Your task to perform on an android device: turn pop-ups off in chrome Image 0: 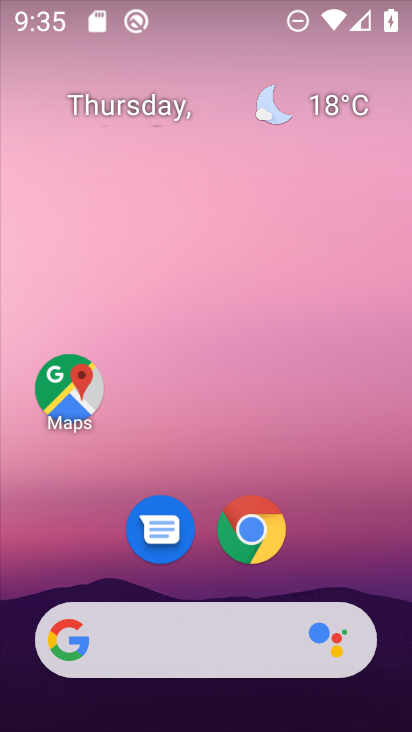
Step 0: click (246, 533)
Your task to perform on an android device: turn pop-ups off in chrome Image 1: 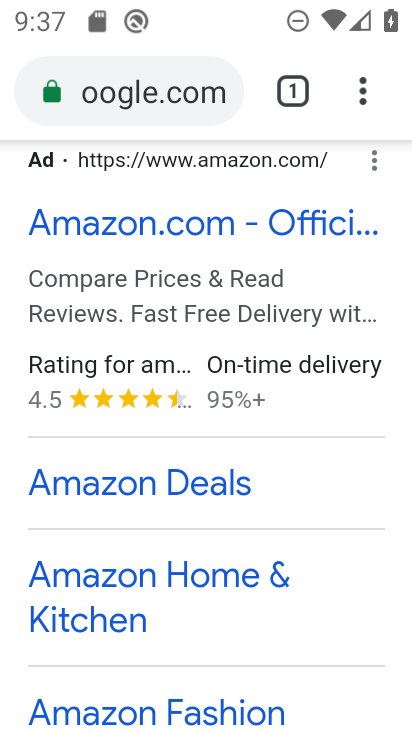
Step 1: click (368, 80)
Your task to perform on an android device: turn pop-ups off in chrome Image 2: 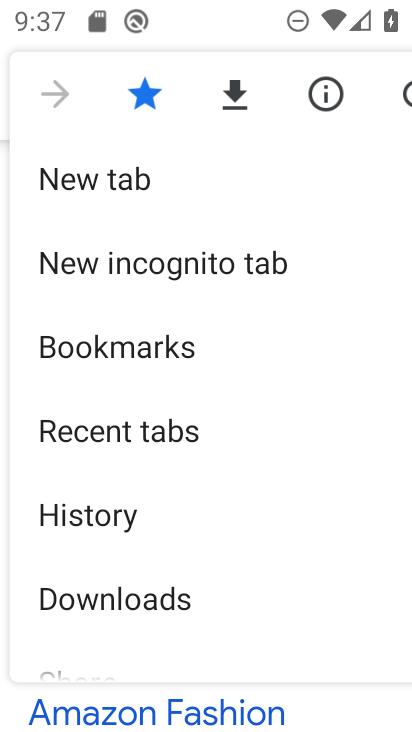
Step 2: drag from (254, 613) to (234, 325)
Your task to perform on an android device: turn pop-ups off in chrome Image 3: 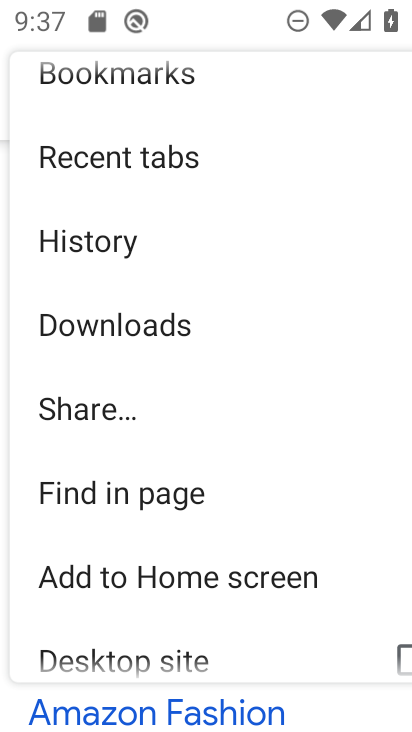
Step 3: drag from (254, 617) to (257, 321)
Your task to perform on an android device: turn pop-ups off in chrome Image 4: 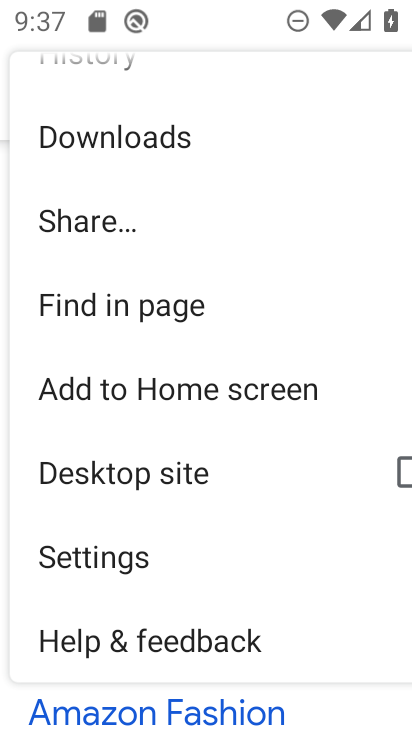
Step 4: click (112, 560)
Your task to perform on an android device: turn pop-ups off in chrome Image 5: 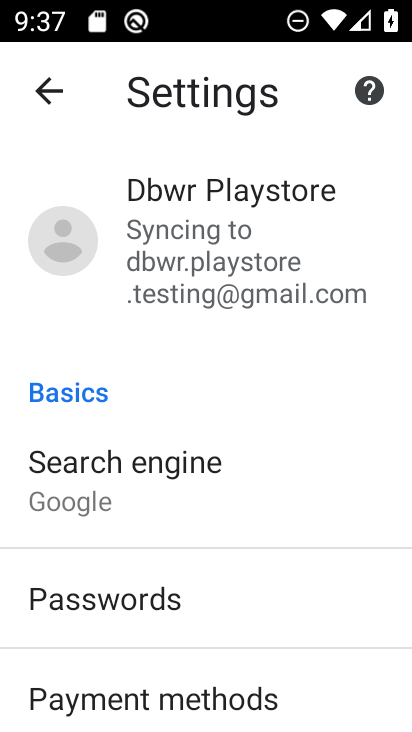
Step 5: drag from (336, 382) to (332, 204)
Your task to perform on an android device: turn pop-ups off in chrome Image 6: 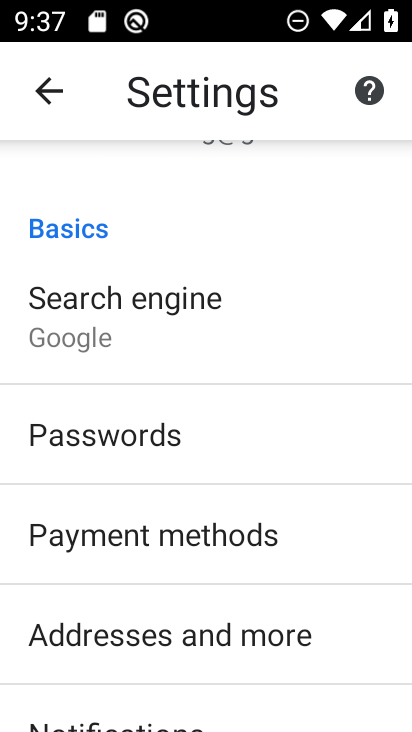
Step 6: drag from (335, 673) to (315, 340)
Your task to perform on an android device: turn pop-ups off in chrome Image 7: 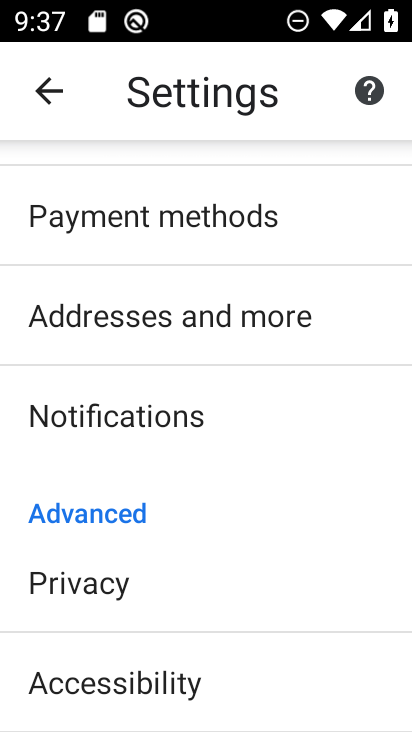
Step 7: drag from (249, 582) to (247, 331)
Your task to perform on an android device: turn pop-ups off in chrome Image 8: 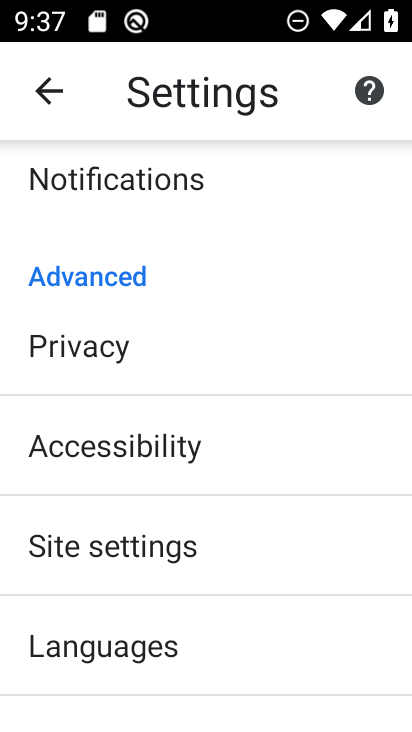
Step 8: click (82, 550)
Your task to perform on an android device: turn pop-ups off in chrome Image 9: 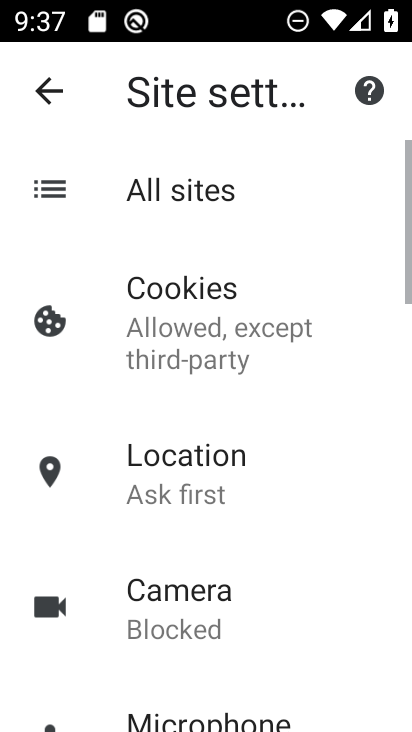
Step 9: drag from (347, 696) to (340, 237)
Your task to perform on an android device: turn pop-ups off in chrome Image 10: 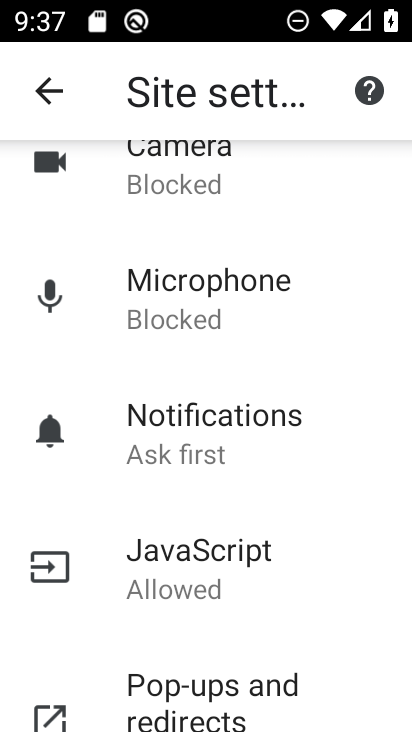
Step 10: click (203, 698)
Your task to perform on an android device: turn pop-ups off in chrome Image 11: 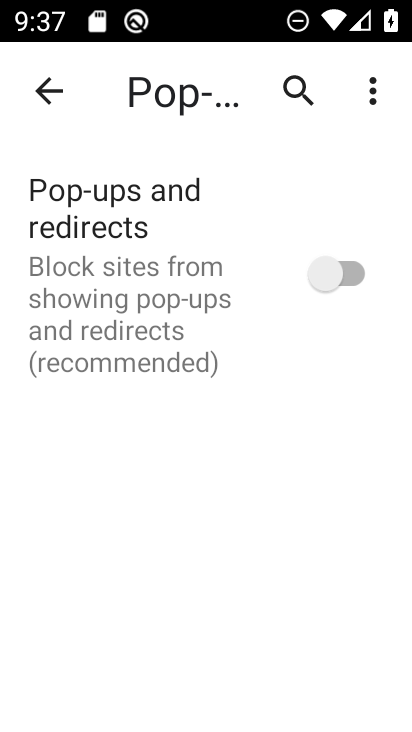
Step 11: task complete